Your task to perform on an android device: Search for sushi restaurants on Maps Image 0: 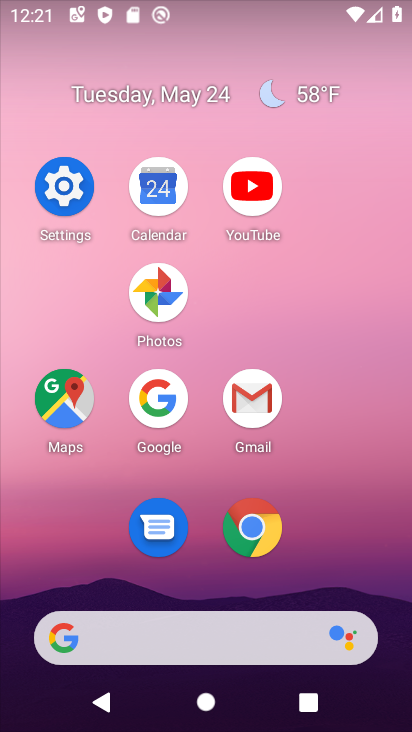
Step 0: click (80, 392)
Your task to perform on an android device: Search for sushi restaurants on Maps Image 1: 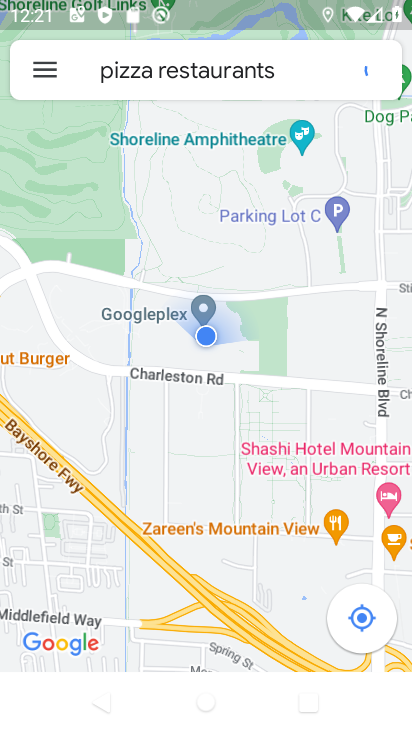
Step 1: click (300, 78)
Your task to perform on an android device: Search for sushi restaurants on Maps Image 2: 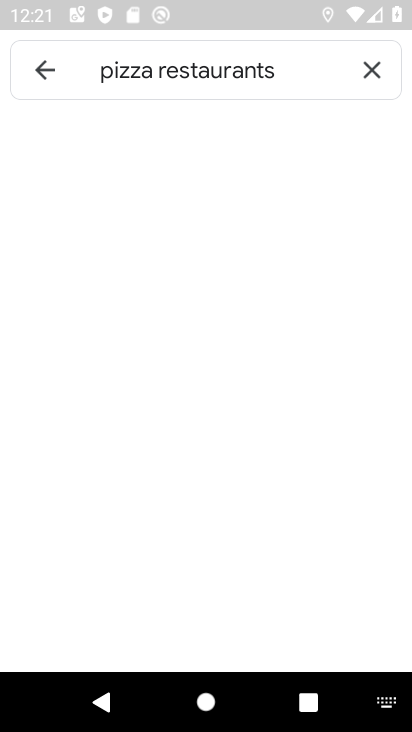
Step 2: click (356, 64)
Your task to perform on an android device: Search for sushi restaurants on Maps Image 3: 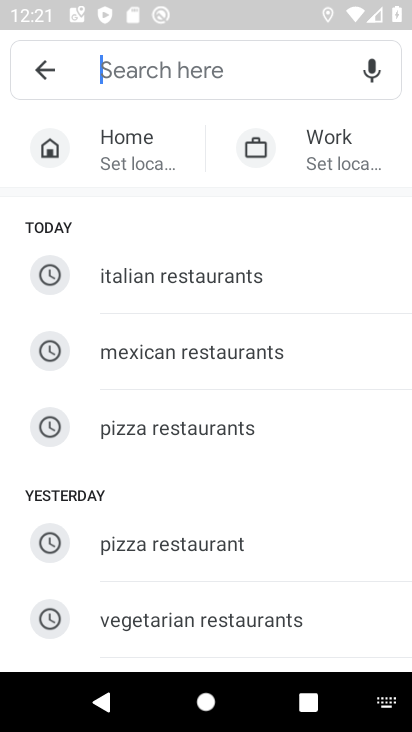
Step 3: drag from (238, 564) to (237, 207)
Your task to perform on an android device: Search for sushi restaurants on Maps Image 4: 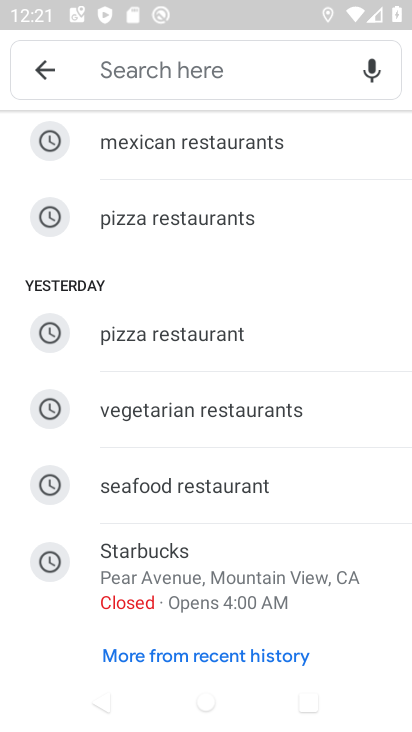
Step 4: drag from (237, 473) to (260, 130)
Your task to perform on an android device: Search for sushi restaurants on Maps Image 5: 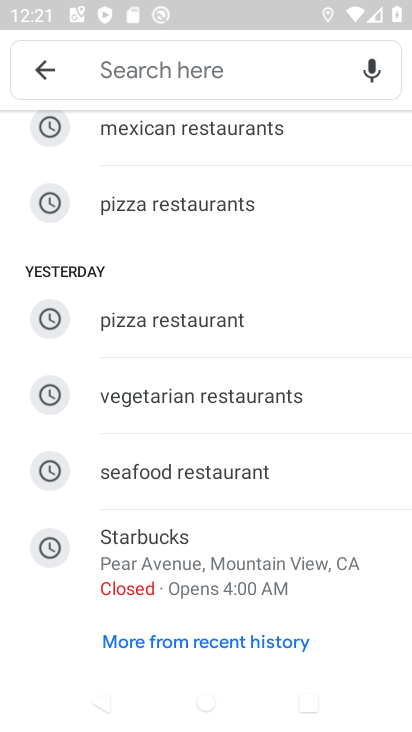
Step 5: click (180, 70)
Your task to perform on an android device: Search for sushi restaurants on Maps Image 6: 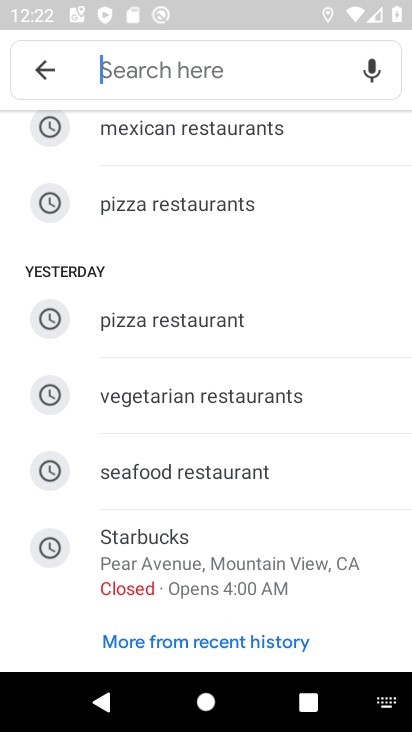
Step 6: type "sushi restaurants"
Your task to perform on an android device: Search for sushi restaurants on Maps Image 7: 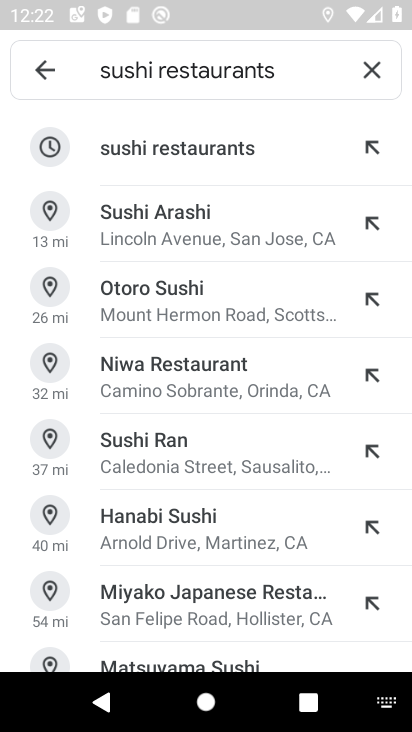
Step 7: task complete